Your task to perform on an android device: Go to battery settings Image 0: 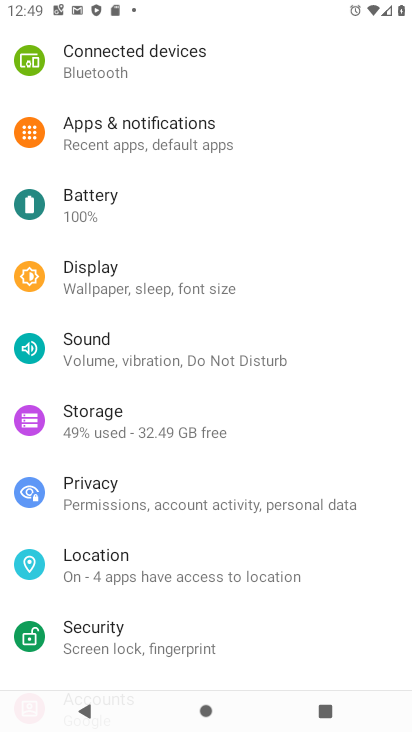
Step 0: press home button
Your task to perform on an android device: Go to battery settings Image 1: 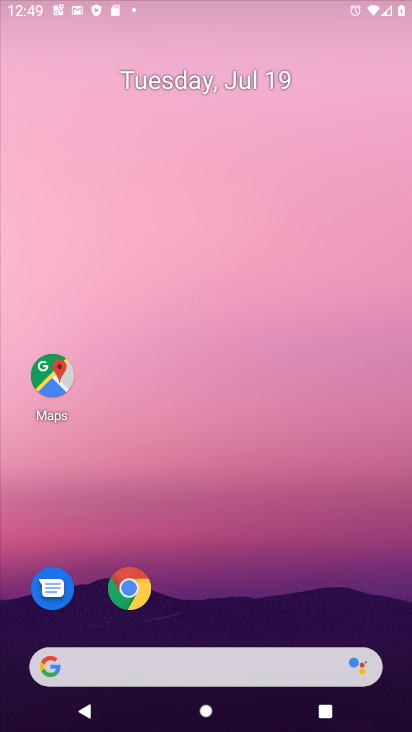
Step 1: drag from (381, 638) to (224, 55)
Your task to perform on an android device: Go to battery settings Image 2: 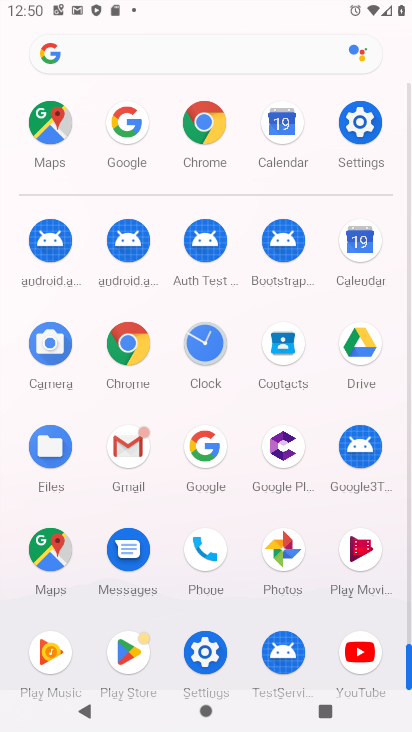
Step 2: click (202, 650)
Your task to perform on an android device: Go to battery settings Image 3: 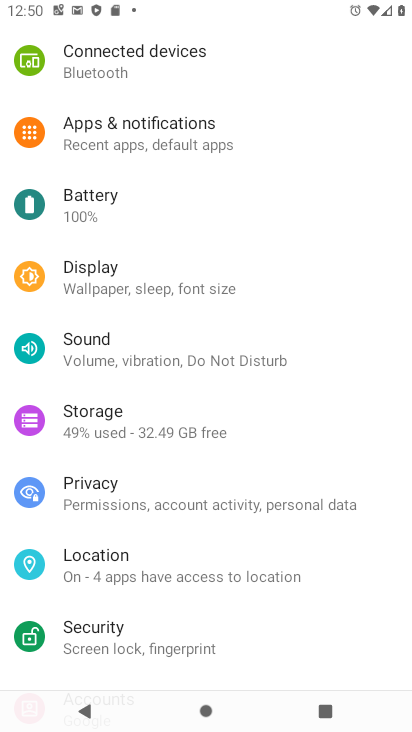
Step 3: click (101, 213)
Your task to perform on an android device: Go to battery settings Image 4: 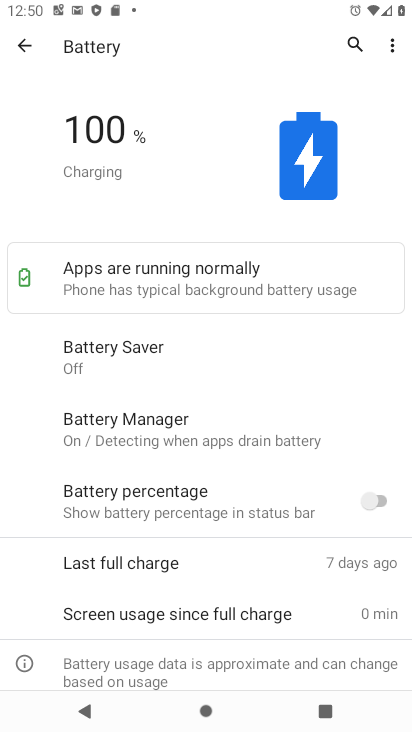
Step 4: task complete